Your task to perform on an android device: empty trash in the gmail app Image 0: 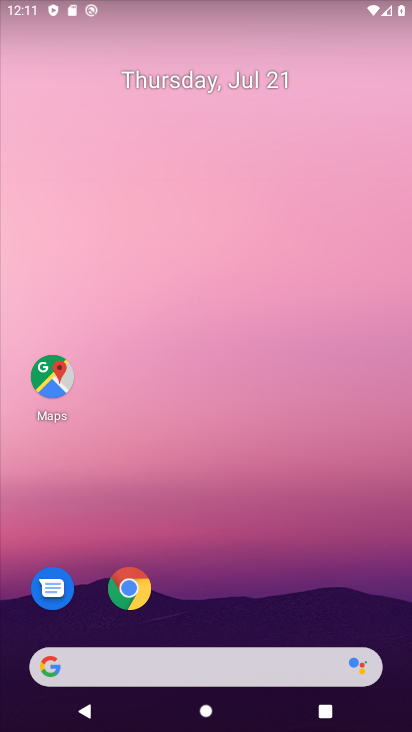
Step 0: drag from (276, 563) to (289, 223)
Your task to perform on an android device: empty trash in the gmail app Image 1: 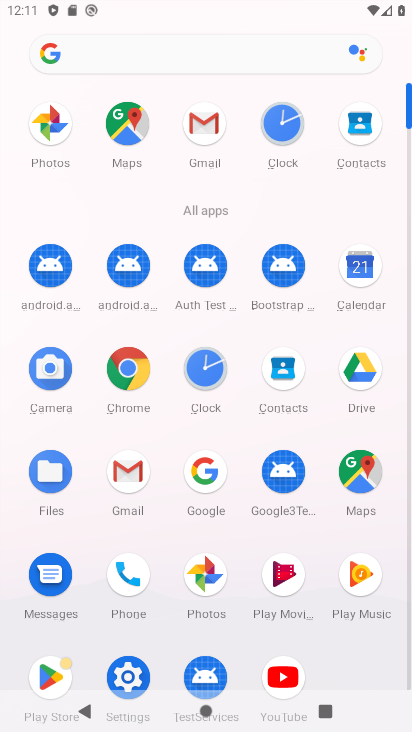
Step 1: click (199, 139)
Your task to perform on an android device: empty trash in the gmail app Image 2: 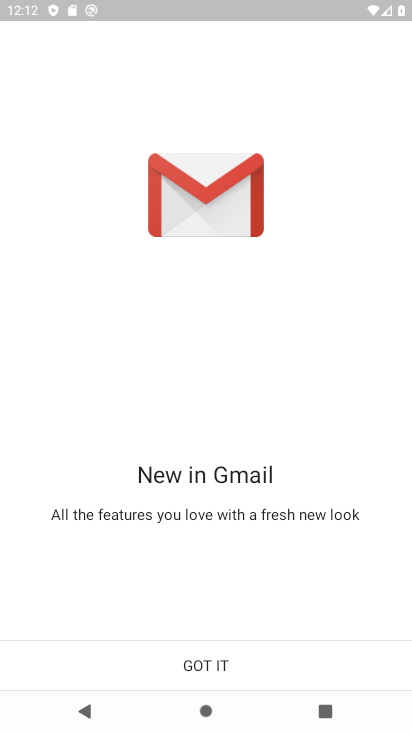
Step 2: click (202, 664)
Your task to perform on an android device: empty trash in the gmail app Image 3: 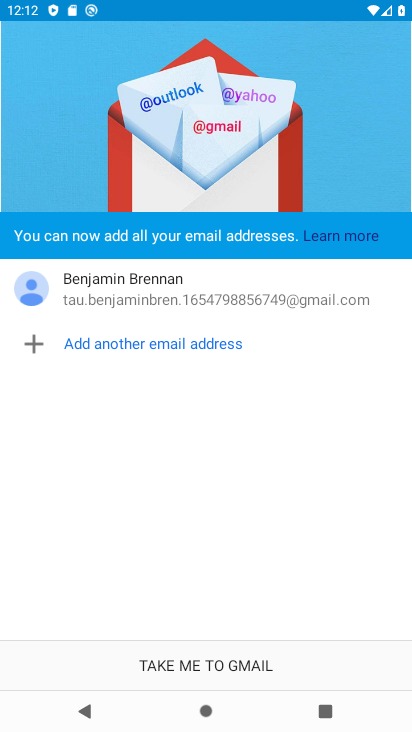
Step 3: click (208, 665)
Your task to perform on an android device: empty trash in the gmail app Image 4: 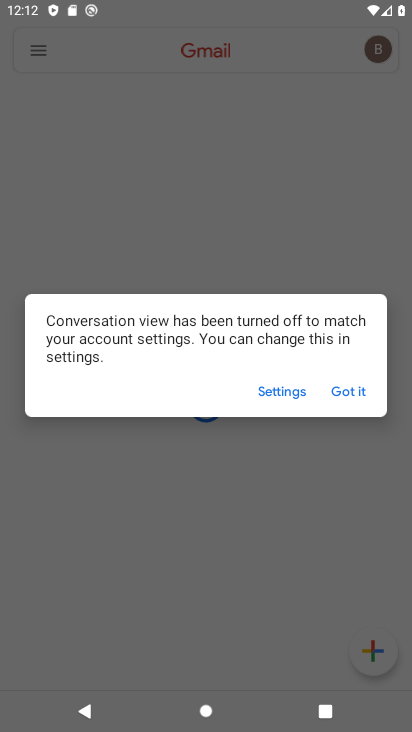
Step 4: click (341, 390)
Your task to perform on an android device: empty trash in the gmail app Image 5: 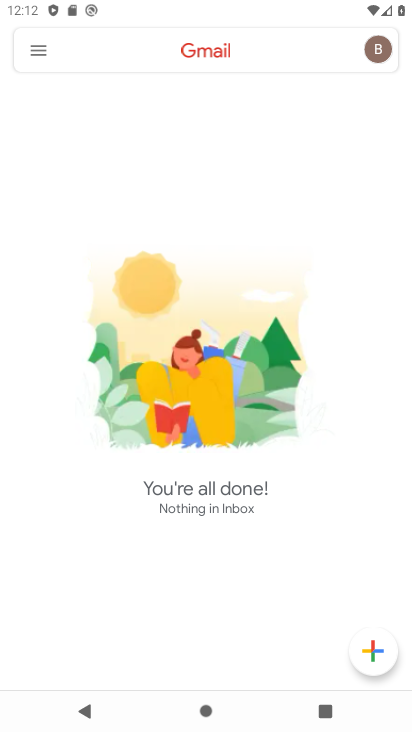
Step 5: click (39, 59)
Your task to perform on an android device: empty trash in the gmail app Image 6: 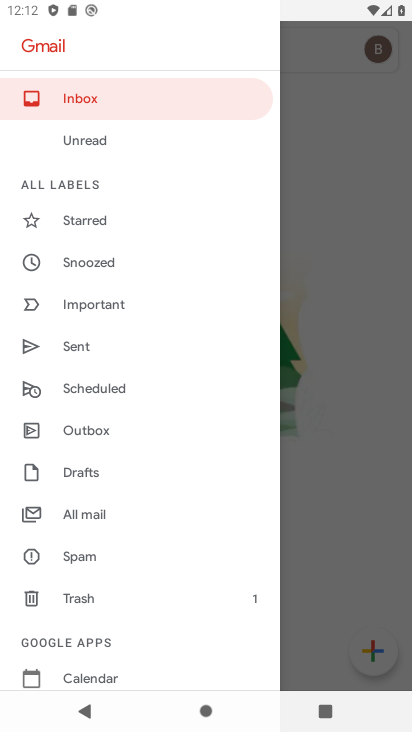
Step 6: click (89, 601)
Your task to perform on an android device: empty trash in the gmail app Image 7: 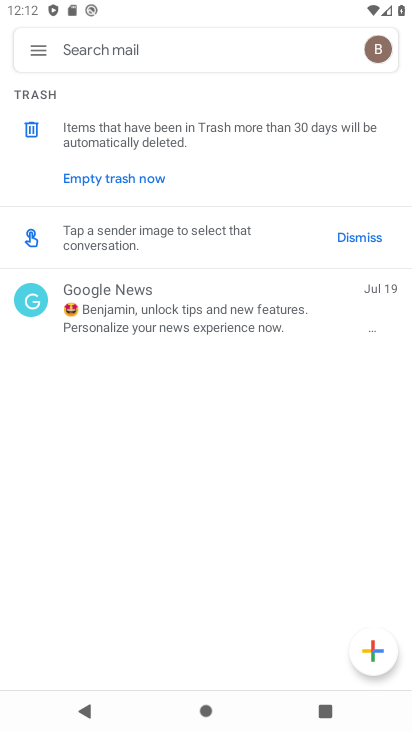
Step 7: task complete